Your task to perform on an android device: Add "razer naga" to the cart on walmart Image 0: 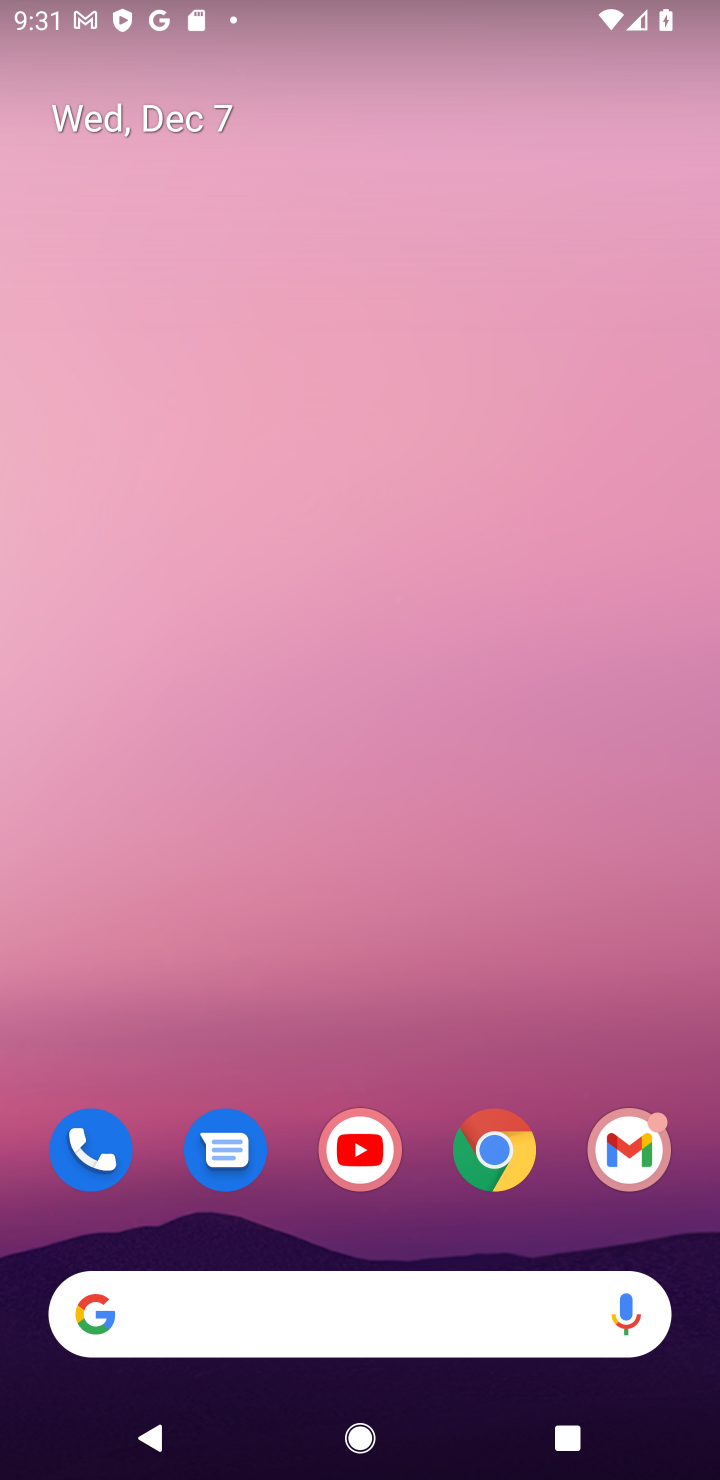
Step 0: click (488, 1155)
Your task to perform on an android device: Add "razer naga" to the cart on walmart Image 1: 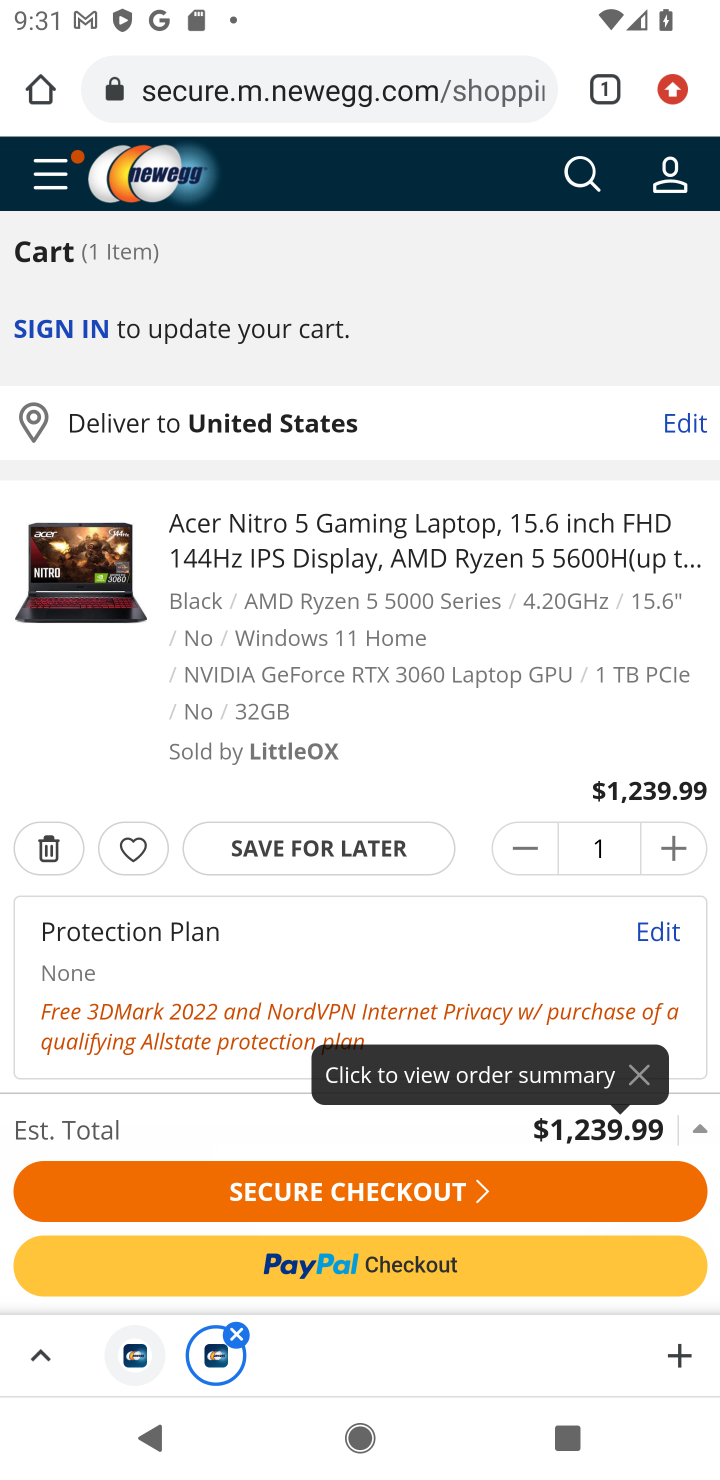
Step 1: click (447, 83)
Your task to perform on an android device: Add "razer naga" to the cart on walmart Image 2: 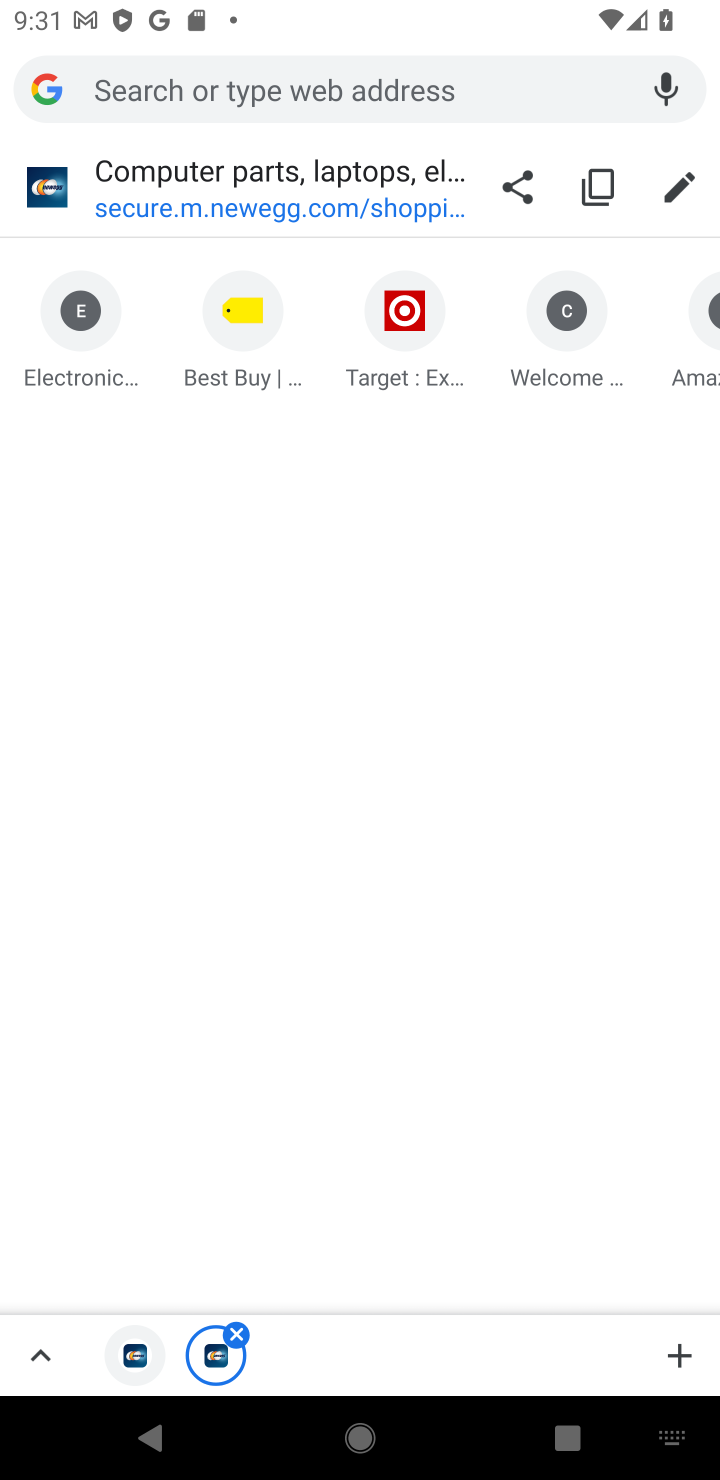
Step 2: type "walmart"
Your task to perform on an android device: Add "razer naga" to the cart on walmart Image 3: 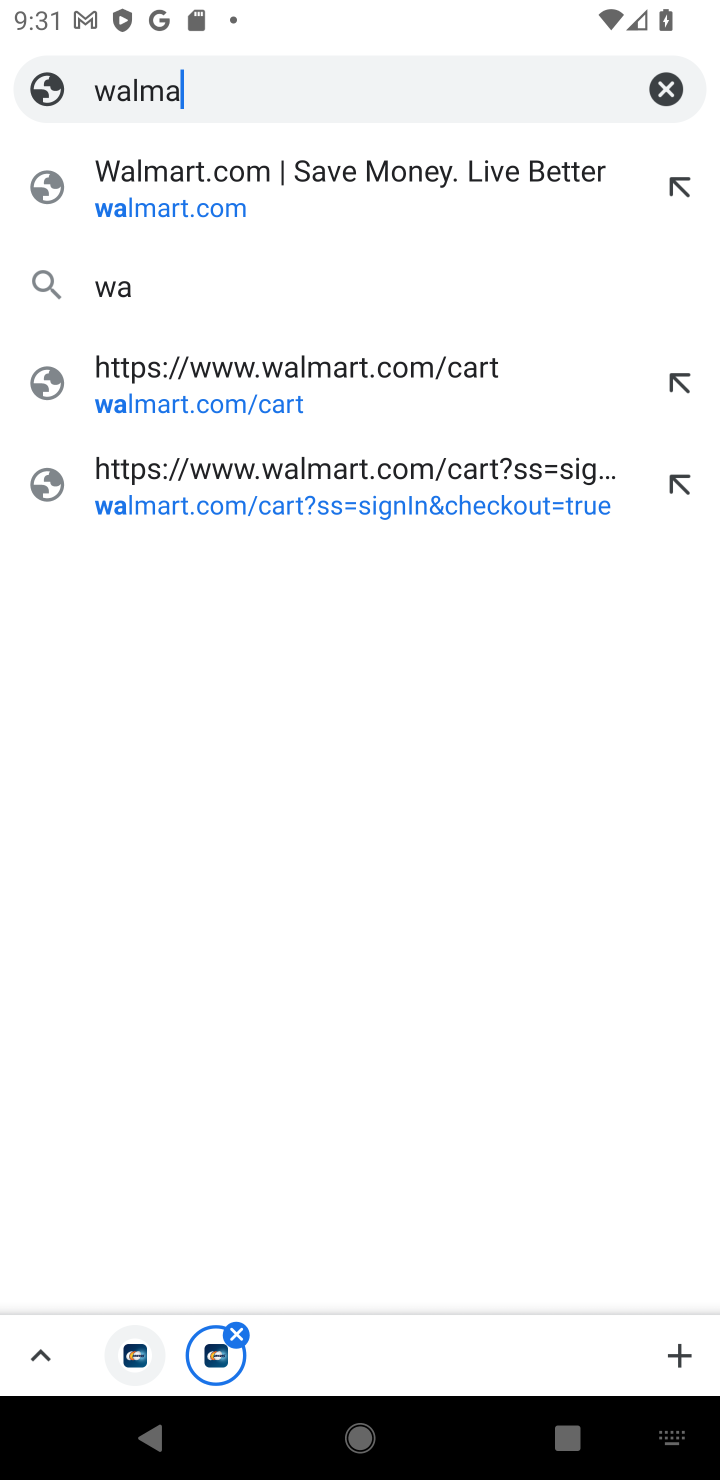
Step 3: press enter
Your task to perform on an android device: Add "razer naga" to the cart on walmart Image 4: 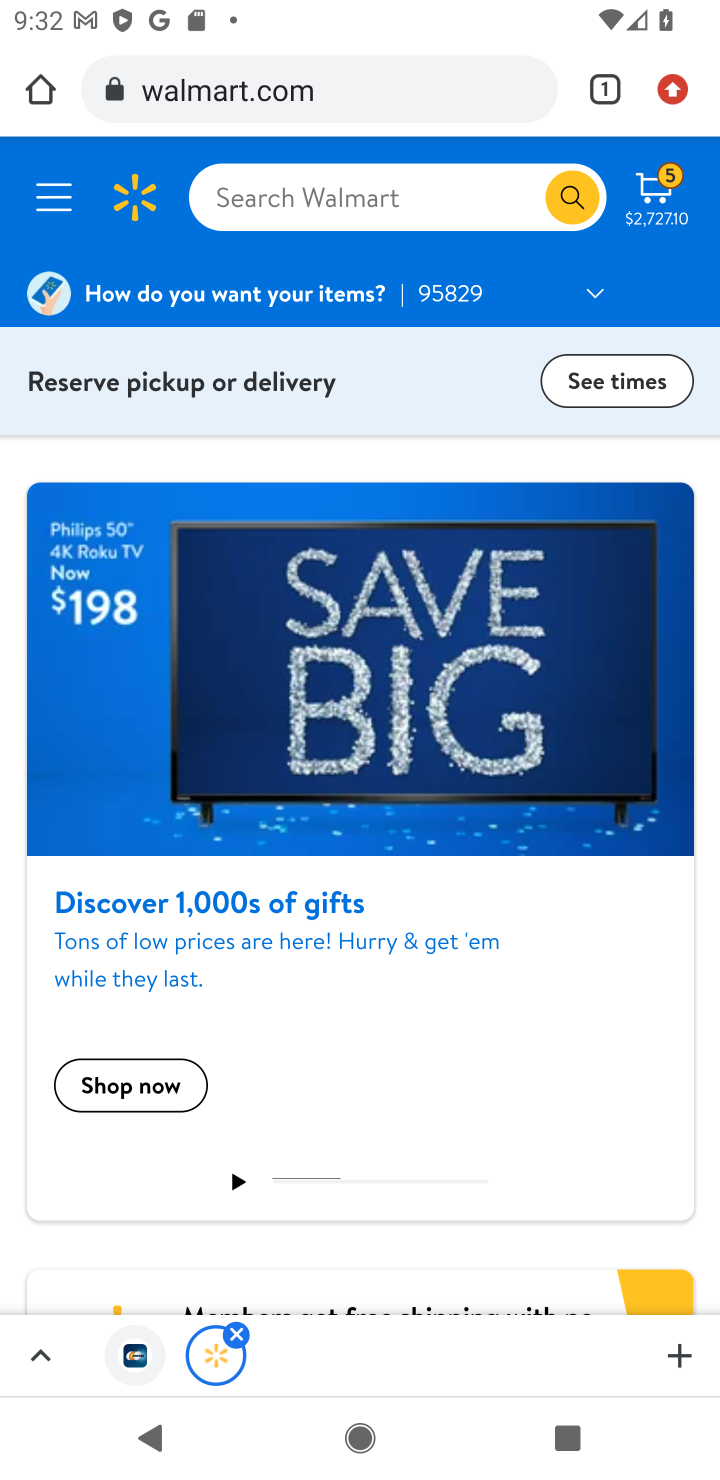
Step 4: click (422, 176)
Your task to perform on an android device: Add "razer naga" to the cart on walmart Image 5: 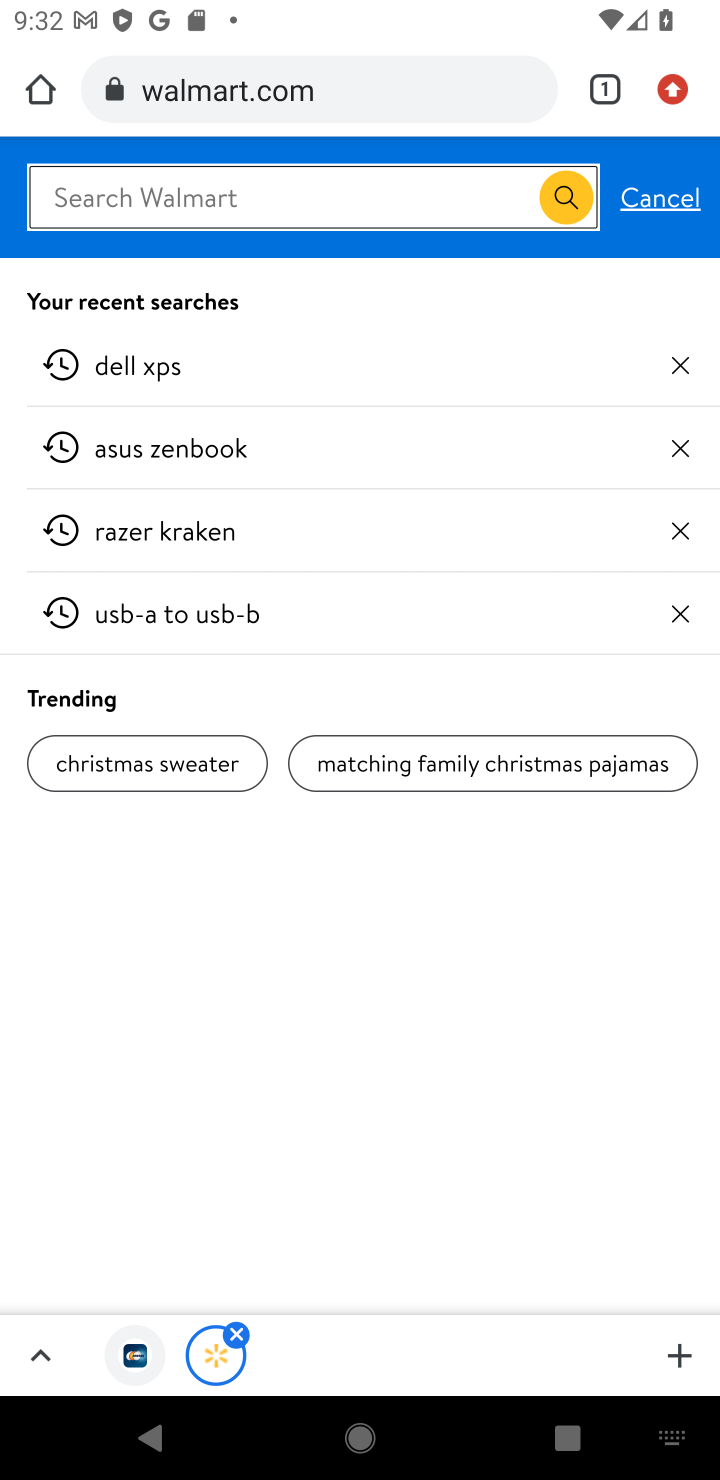
Step 5: type "razer naga"
Your task to perform on an android device: Add "razer naga" to the cart on walmart Image 6: 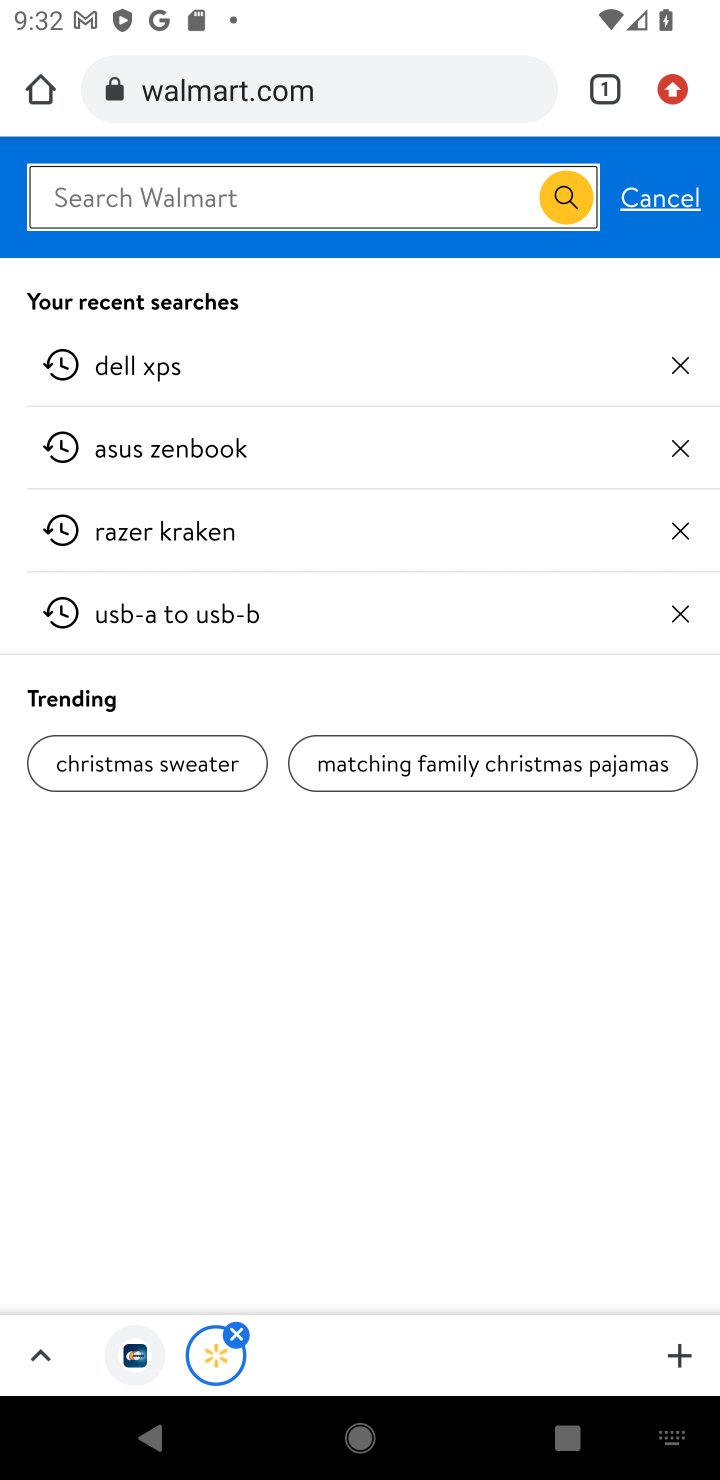
Step 6: press enter
Your task to perform on an android device: Add "razer naga" to the cart on walmart Image 7: 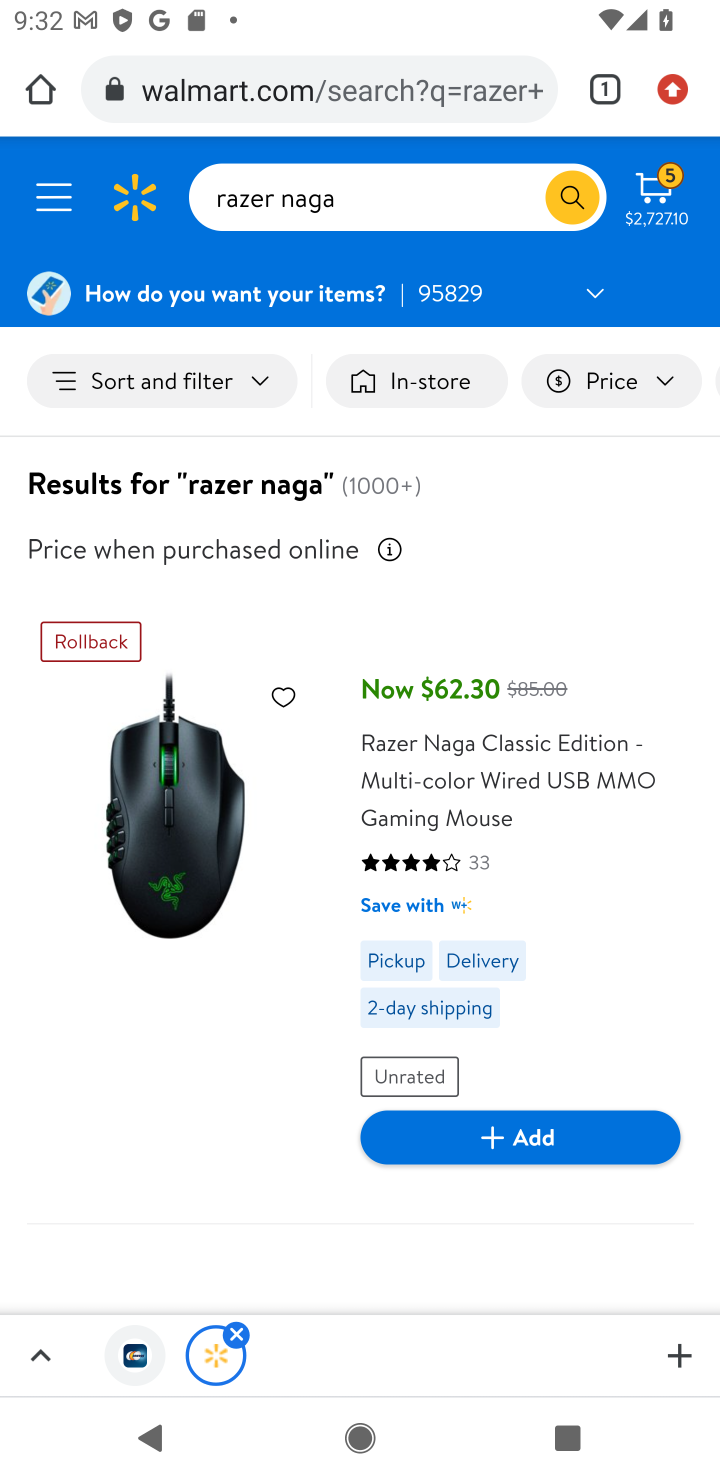
Step 7: click (160, 836)
Your task to perform on an android device: Add "razer naga" to the cart on walmart Image 8: 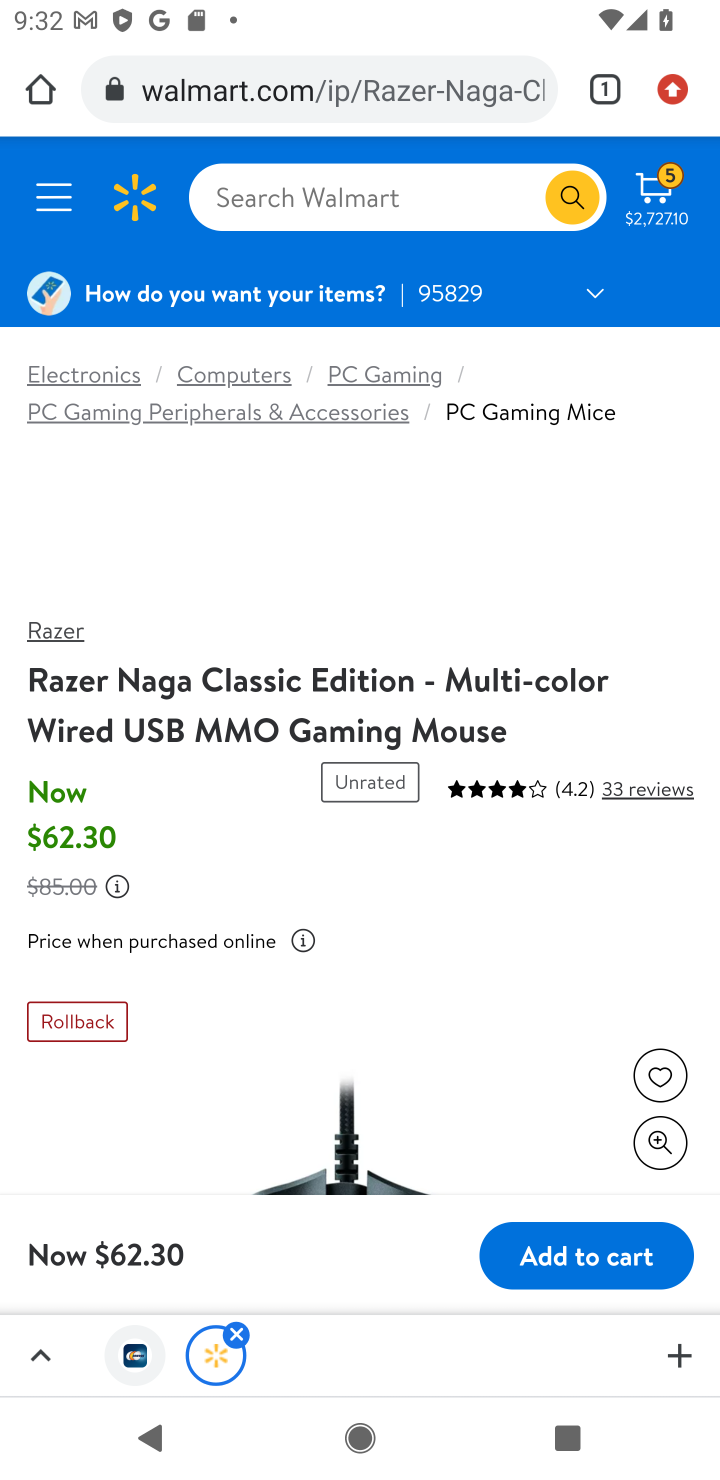
Step 8: click (557, 1261)
Your task to perform on an android device: Add "razer naga" to the cart on walmart Image 9: 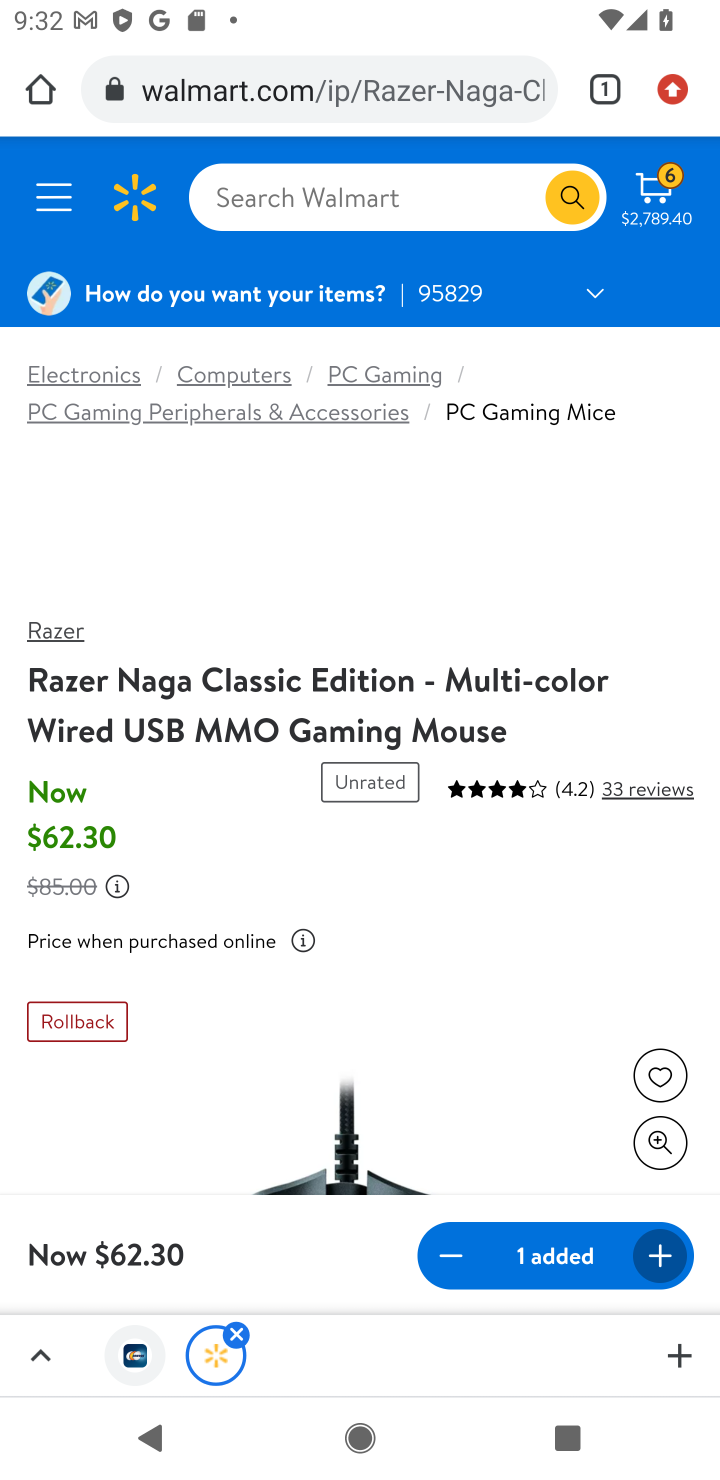
Step 9: task complete